Your task to perform on an android device: turn off notifications in google photos Image 0: 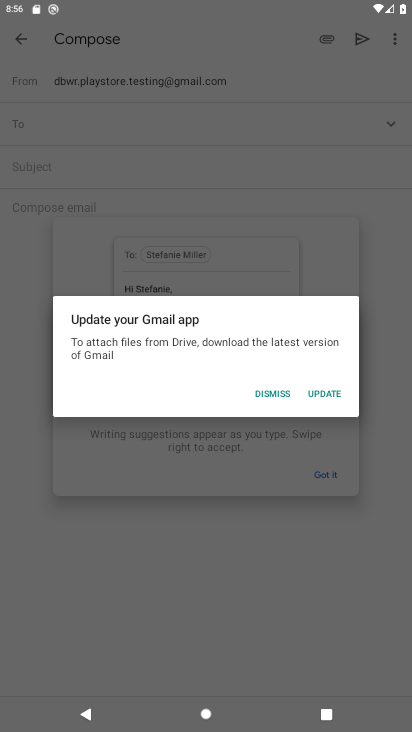
Step 0: press home button
Your task to perform on an android device: turn off notifications in google photos Image 1: 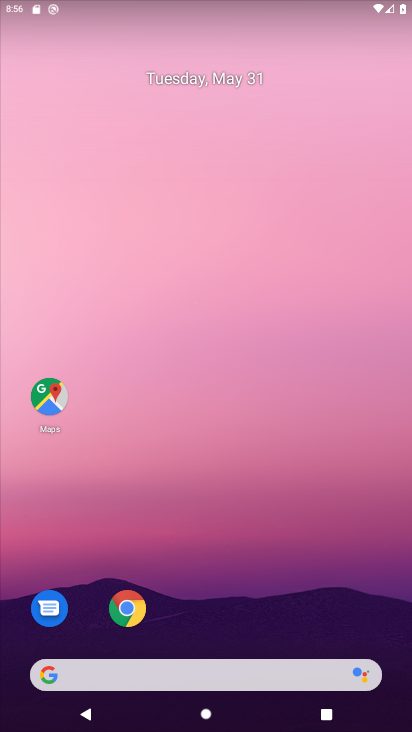
Step 1: drag from (220, 594) to (162, 133)
Your task to perform on an android device: turn off notifications in google photos Image 2: 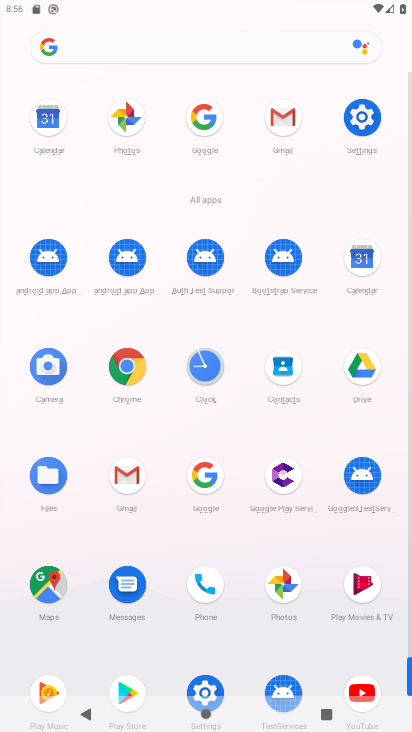
Step 2: click (129, 118)
Your task to perform on an android device: turn off notifications in google photos Image 3: 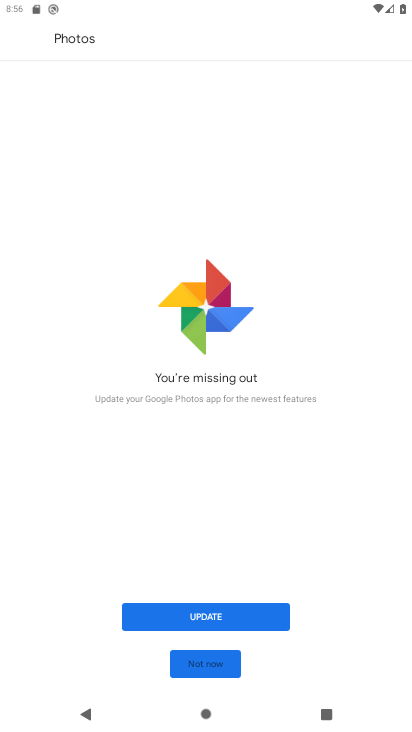
Step 3: click (204, 613)
Your task to perform on an android device: turn off notifications in google photos Image 4: 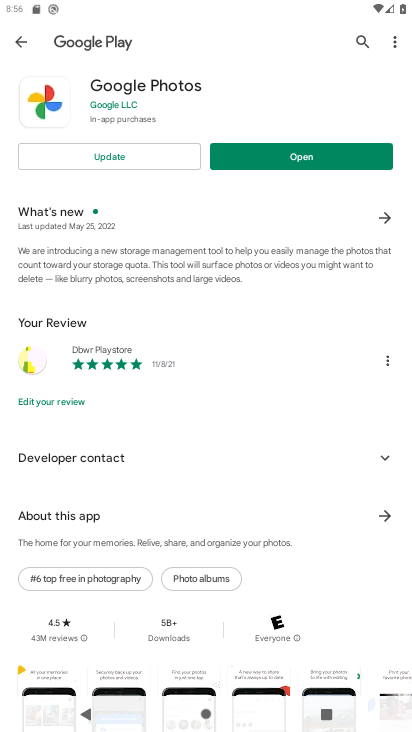
Step 4: click (124, 156)
Your task to perform on an android device: turn off notifications in google photos Image 5: 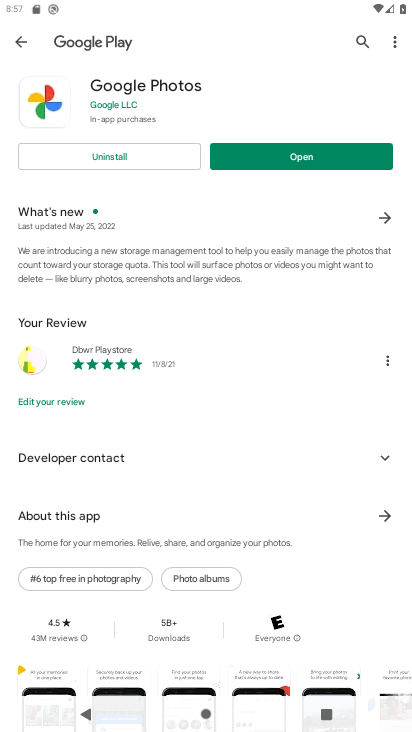
Step 5: click (271, 146)
Your task to perform on an android device: turn off notifications in google photos Image 6: 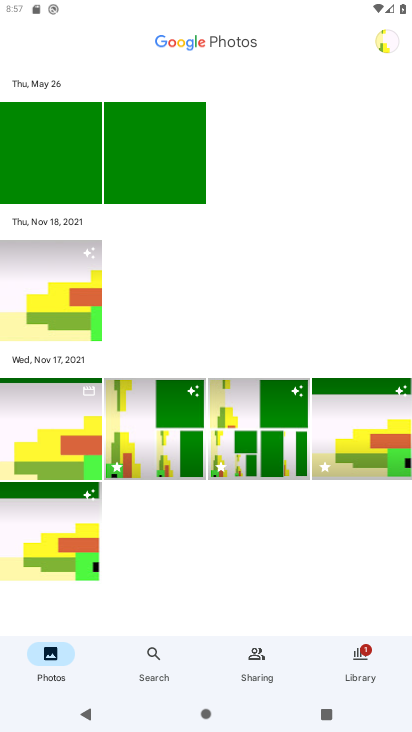
Step 6: click (390, 40)
Your task to perform on an android device: turn off notifications in google photos Image 7: 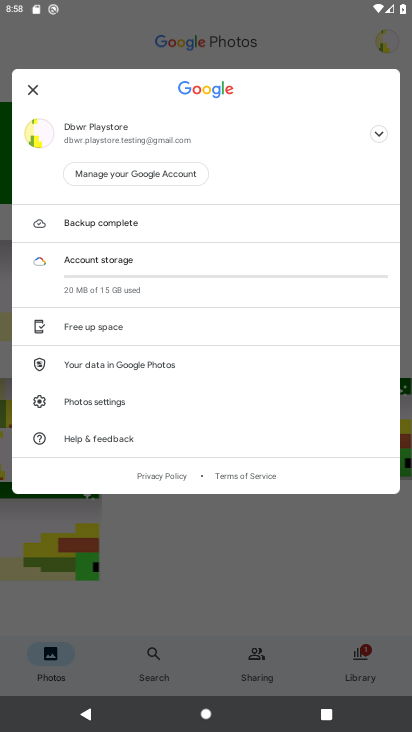
Step 7: click (112, 399)
Your task to perform on an android device: turn off notifications in google photos Image 8: 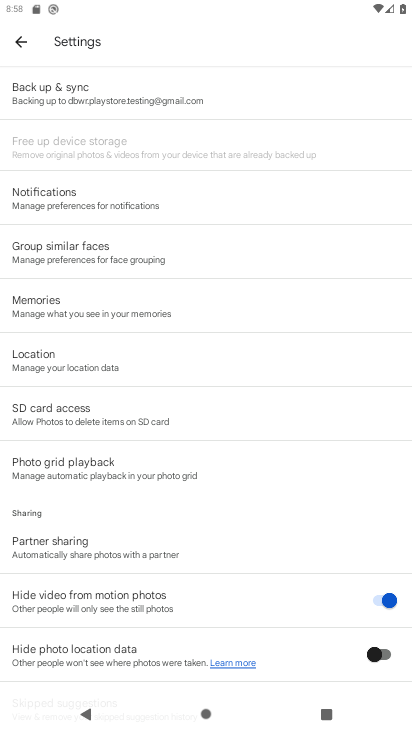
Step 8: click (101, 208)
Your task to perform on an android device: turn off notifications in google photos Image 9: 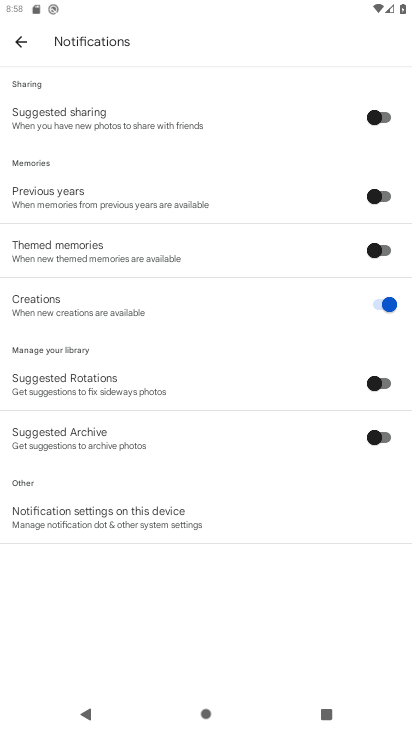
Step 9: click (147, 506)
Your task to perform on an android device: turn off notifications in google photos Image 10: 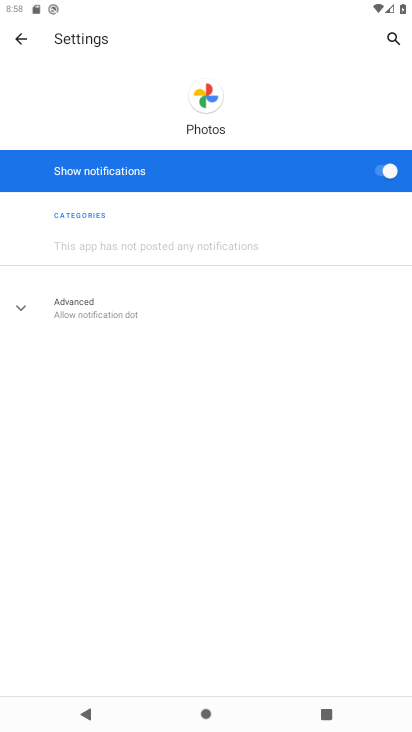
Step 10: click (383, 170)
Your task to perform on an android device: turn off notifications in google photos Image 11: 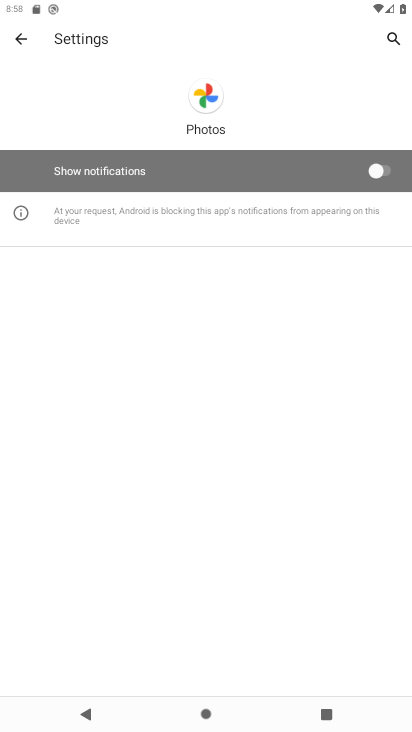
Step 11: task complete